Your task to perform on an android device: Go to calendar. Show me events next week Image 0: 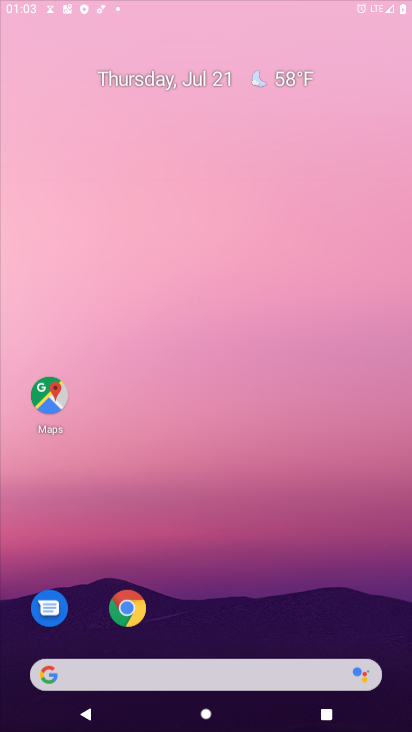
Step 0: press home button
Your task to perform on an android device: Go to calendar. Show me events next week Image 1: 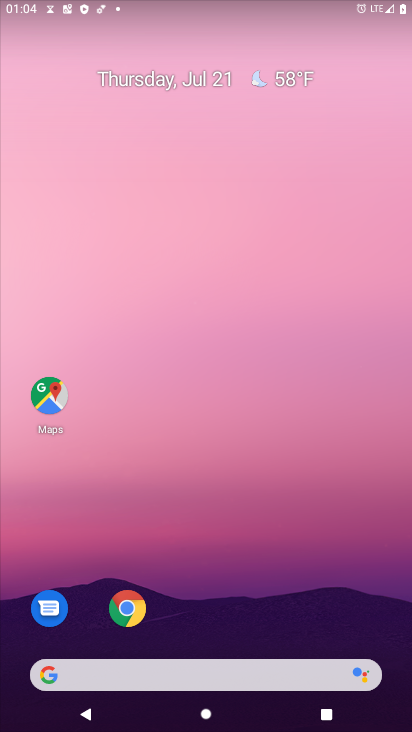
Step 1: drag from (226, 635) to (263, 0)
Your task to perform on an android device: Go to calendar. Show me events next week Image 2: 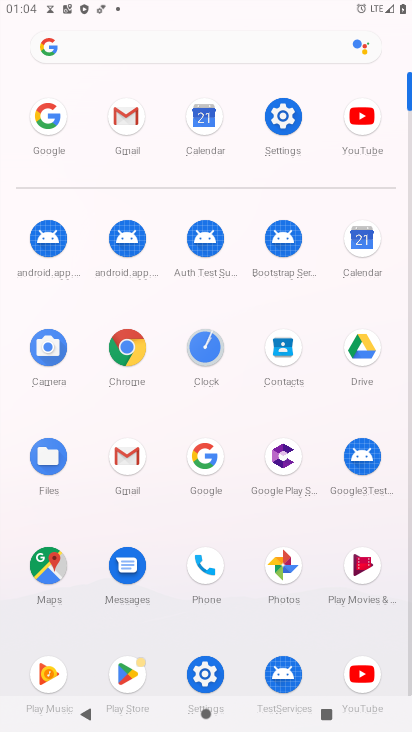
Step 2: click (363, 237)
Your task to perform on an android device: Go to calendar. Show me events next week Image 3: 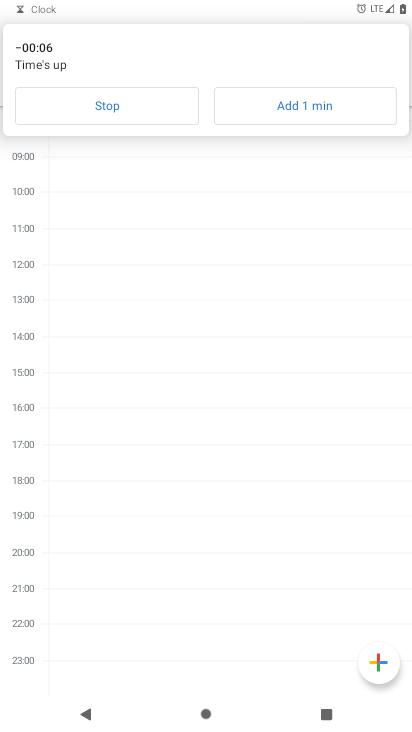
Step 3: click (130, 104)
Your task to perform on an android device: Go to calendar. Show me events next week Image 4: 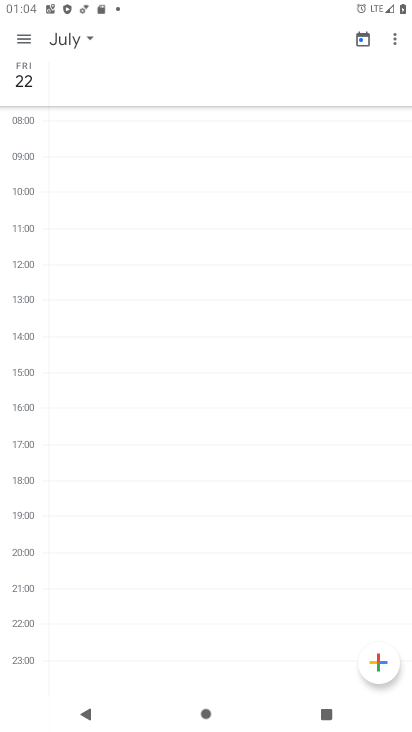
Step 4: click (94, 37)
Your task to perform on an android device: Go to calendar. Show me events next week Image 5: 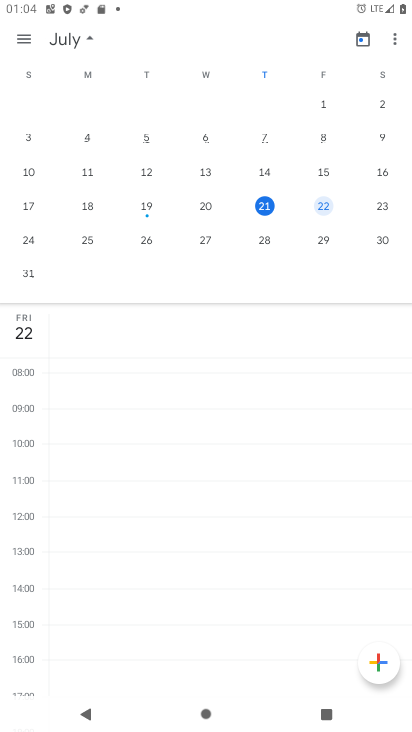
Step 5: click (14, 38)
Your task to perform on an android device: Go to calendar. Show me events next week Image 6: 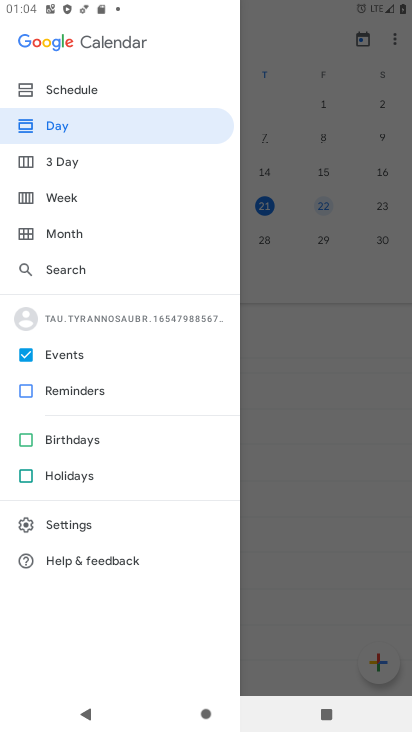
Step 6: click (75, 196)
Your task to perform on an android device: Go to calendar. Show me events next week Image 7: 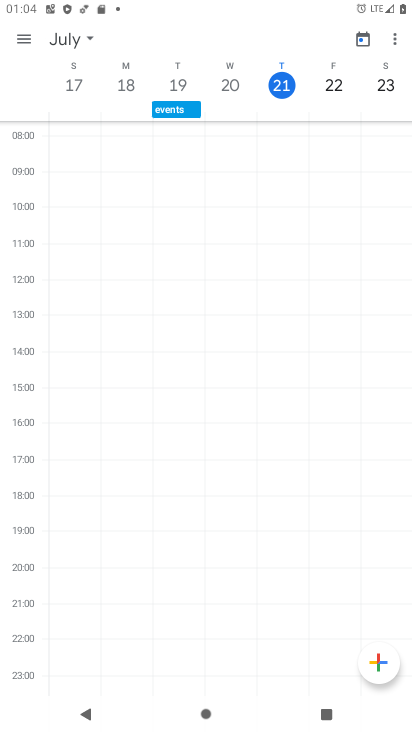
Step 7: click (286, 83)
Your task to perform on an android device: Go to calendar. Show me events next week Image 8: 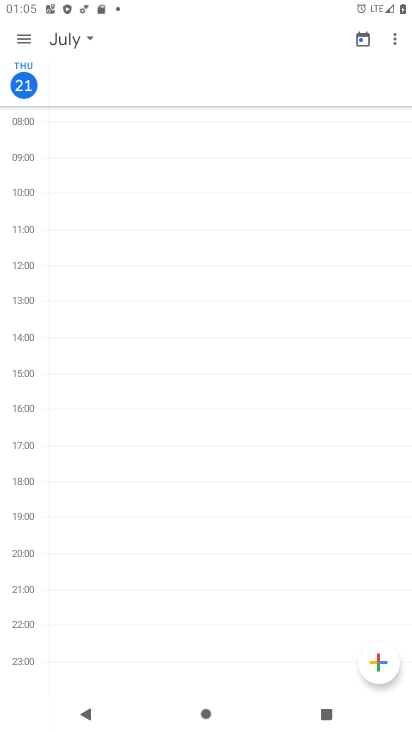
Step 8: click (28, 88)
Your task to perform on an android device: Go to calendar. Show me events next week Image 9: 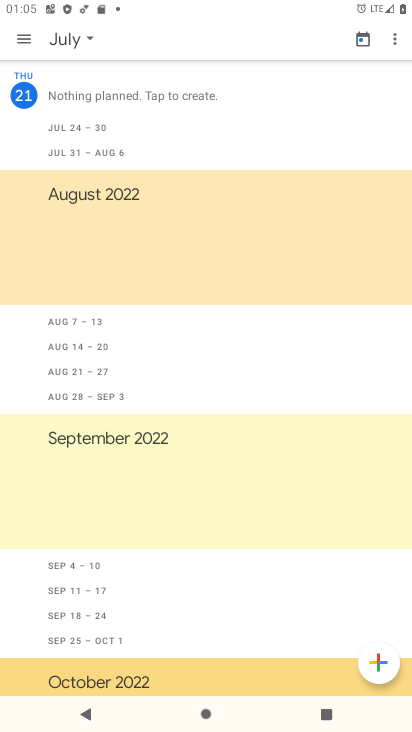
Step 9: task complete